Your task to perform on an android device: turn notification dots off Image 0: 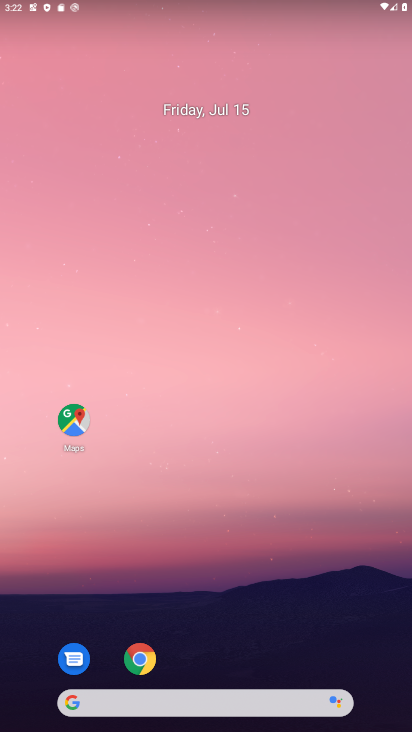
Step 0: drag from (208, 404) to (250, 19)
Your task to perform on an android device: turn notification dots off Image 1: 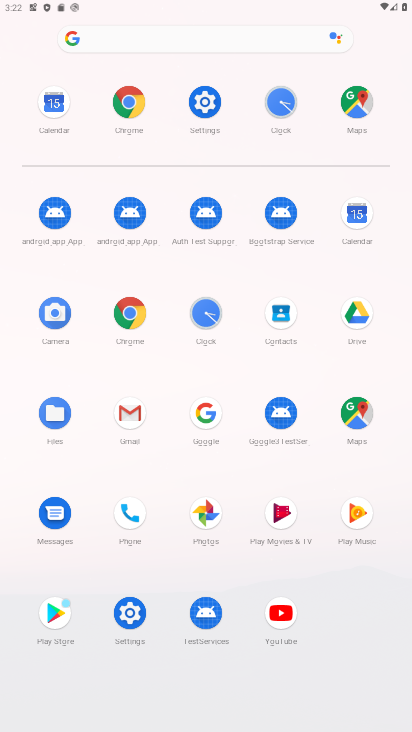
Step 1: click (196, 96)
Your task to perform on an android device: turn notification dots off Image 2: 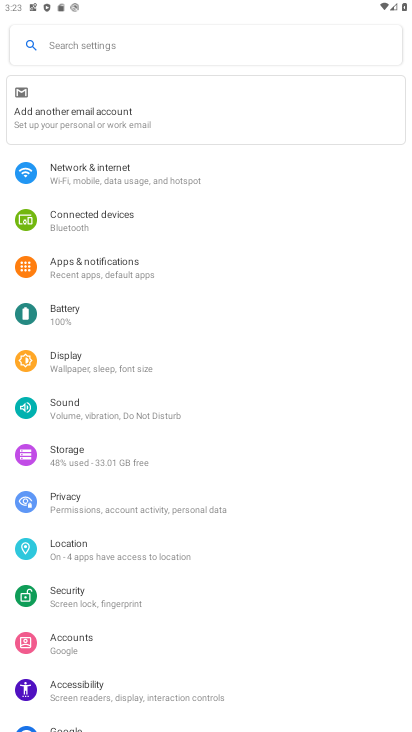
Step 2: click (105, 265)
Your task to perform on an android device: turn notification dots off Image 3: 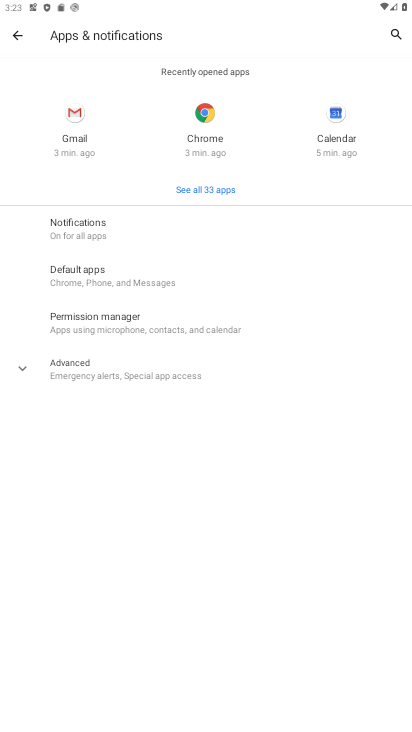
Step 3: click (81, 223)
Your task to perform on an android device: turn notification dots off Image 4: 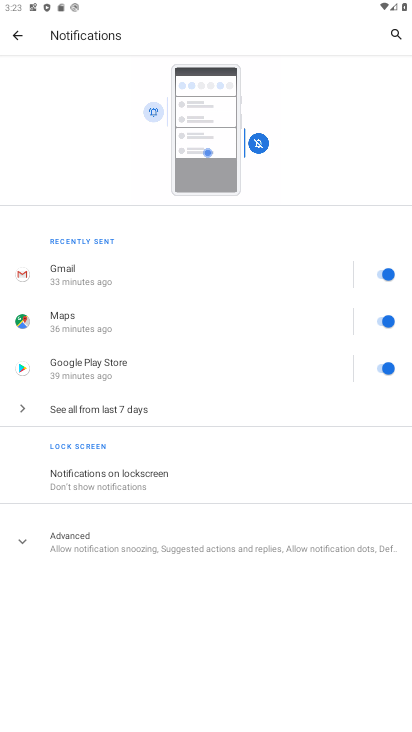
Step 4: click (92, 475)
Your task to perform on an android device: turn notification dots off Image 5: 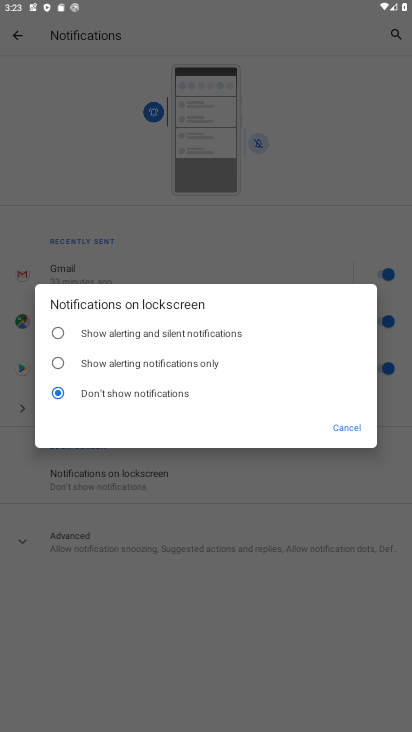
Step 5: click (342, 432)
Your task to perform on an android device: turn notification dots off Image 6: 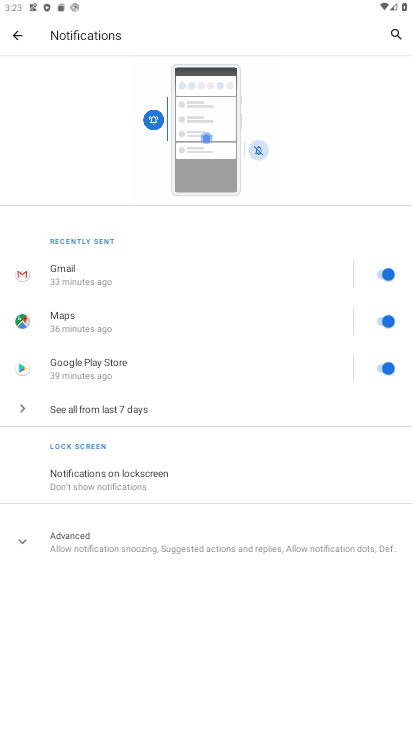
Step 6: click (82, 539)
Your task to perform on an android device: turn notification dots off Image 7: 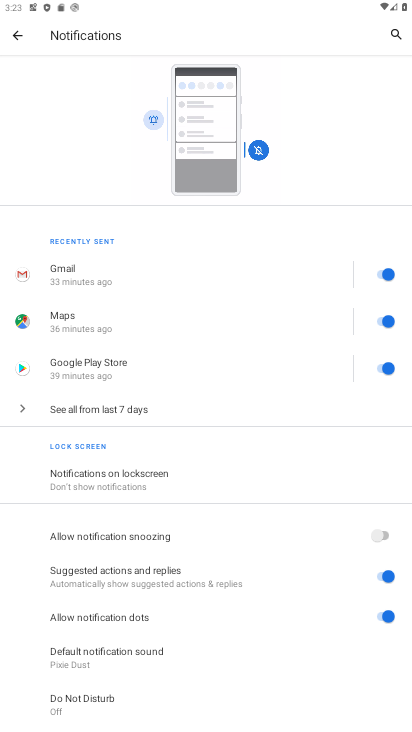
Step 7: click (386, 610)
Your task to perform on an android device: turn notification dots off Image 8: 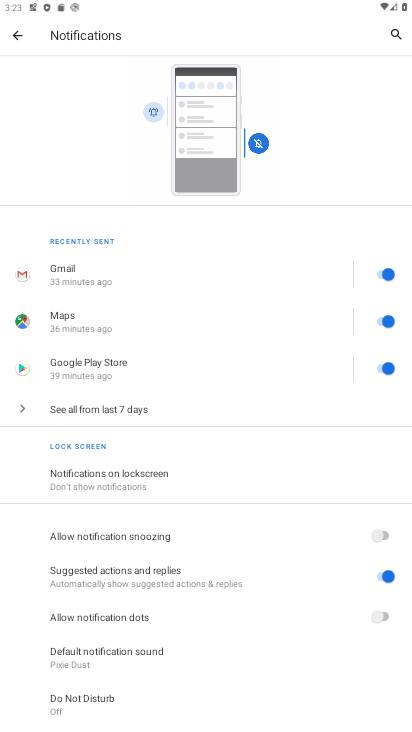
Step 8: task complete